Your task to perform on an android device: toggle notifications settings in the gmail app Image 0: 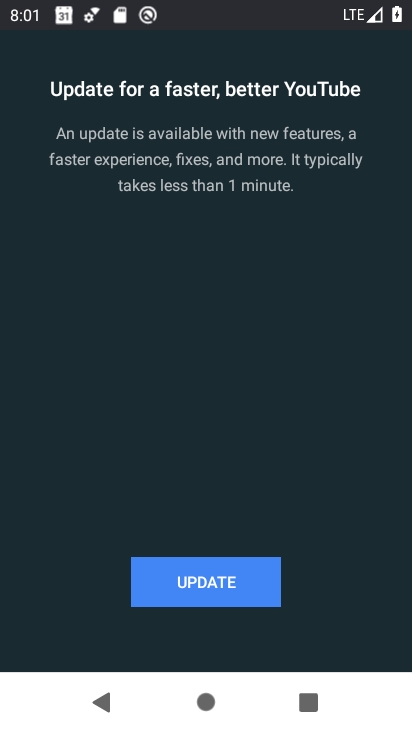
Step 0: press home button
Your task to perform on an android device: toggle notifications settings in the gmail app Image 1: 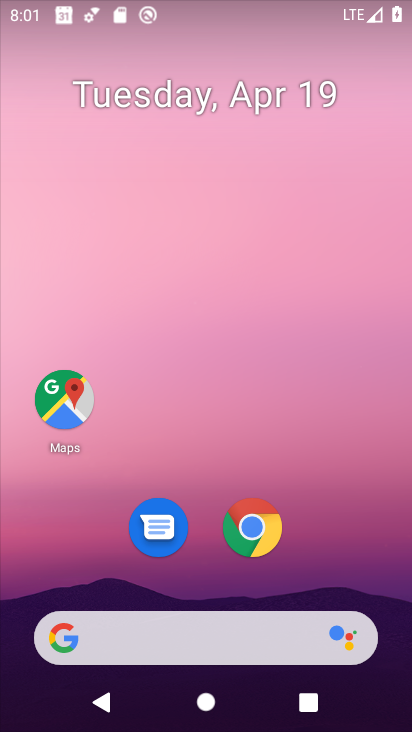
Step 1: drag from (334, 527) to (333, 237)
Your task to perform on an android device: toggle notifications settings in the gmail app Image 2: 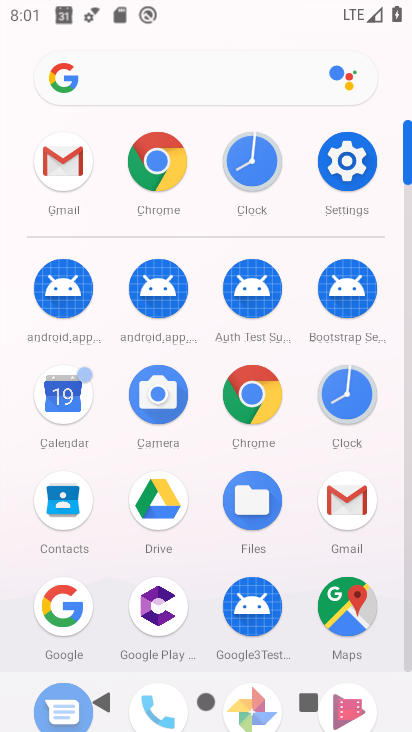
Step 2: click (352, 514)
Your task to perform on an android device: toggle notifications settings in the gmail app Image 3: 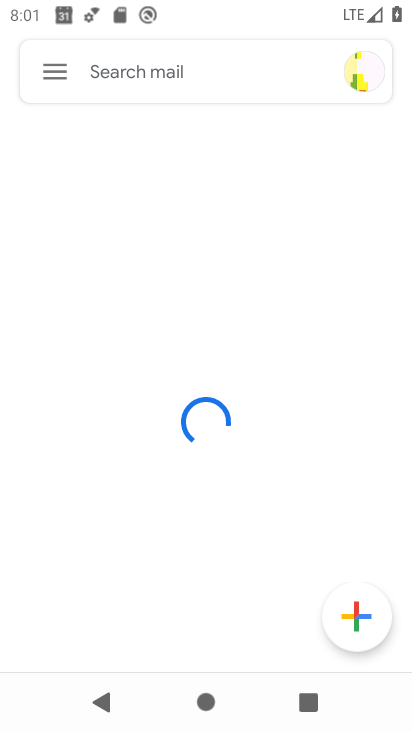
Step 3: click (52, 73)
Your task to perform on an android device: toggle notifications settings in the gmail app Image 4: 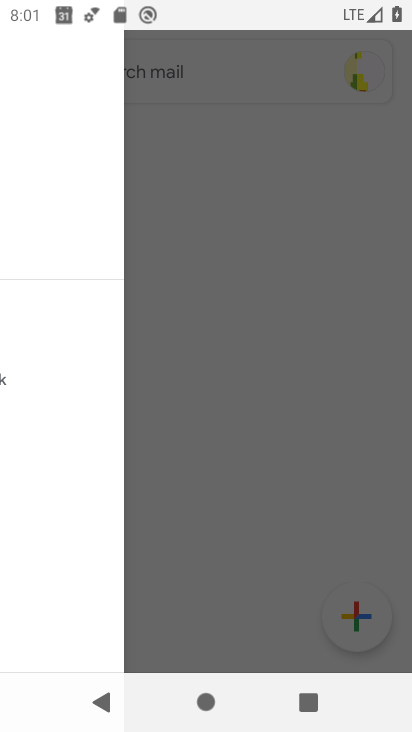
Step 4: click (114, 320)
Your task to perform on an android device: toggle notifications settings in the gmail app Image 5: 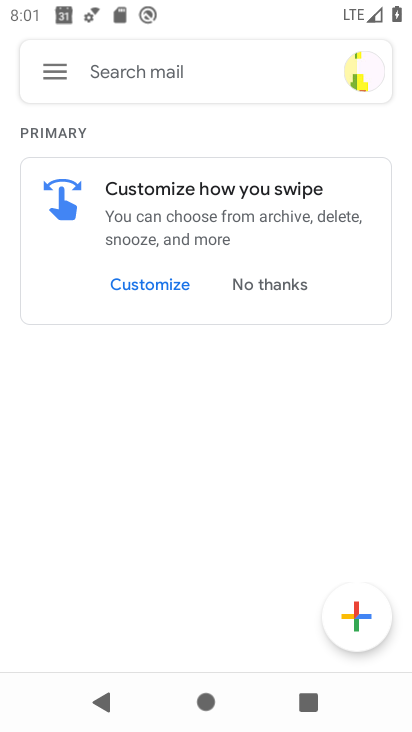
Step 5: click (54, 65)
Your task to perform on an android device: toggle notifications settings in the gmail app Image 6: 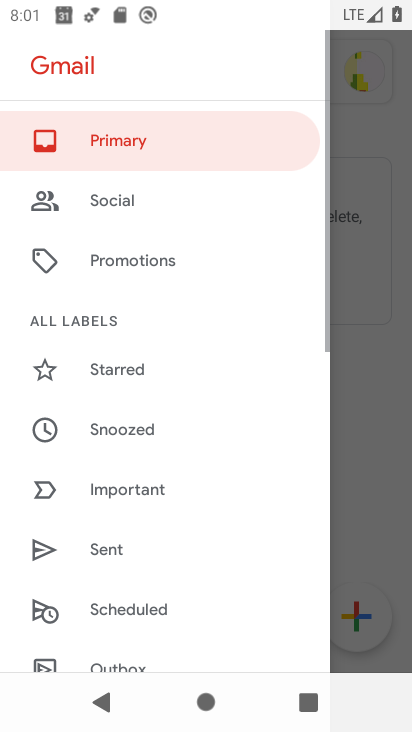
Step 6: drag from (202, 475) to (205, 173)
Your task to perform on an android device: toggle notifications settings in the gmail app Image 7: 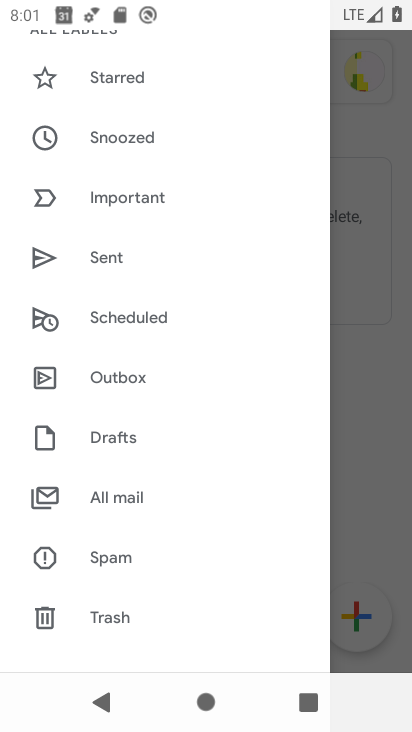
Step 7: drag from (224, 414) to (205, 105)
Your task to perform on an android device: toggle notifications settings in the gmail app Image 8: 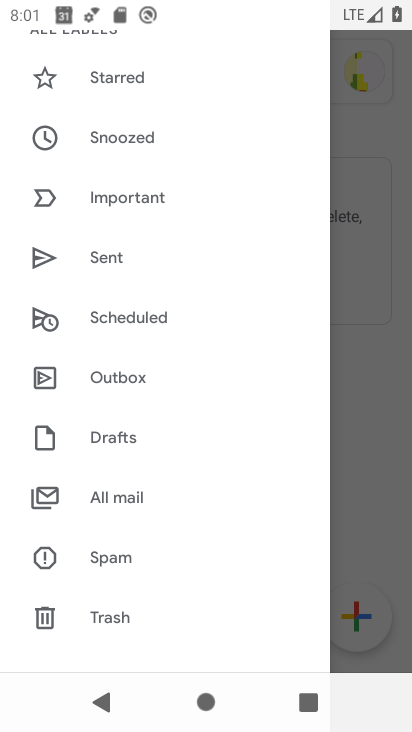
Step 8: drag from (267, 467) to (264, 213)
Your task to perform on an android device: toggle notifications settings in the gmail app Image 9: 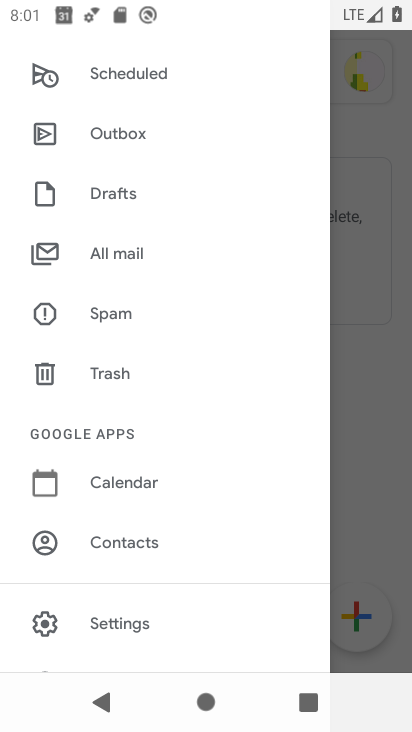
Step 9: click (118, 623)
Your task to perform on an android device: toggle notifications settings in the gmail app Image 10: 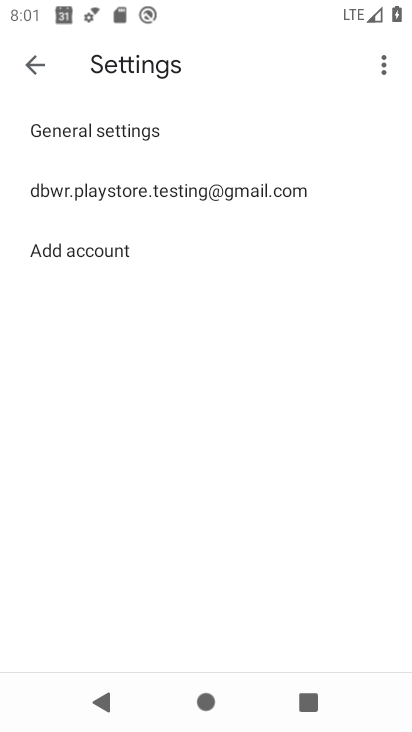
Step 10: click (290, 193)
Your task to perform on an android device: toggle notifications settings in the gmail app Image 11: 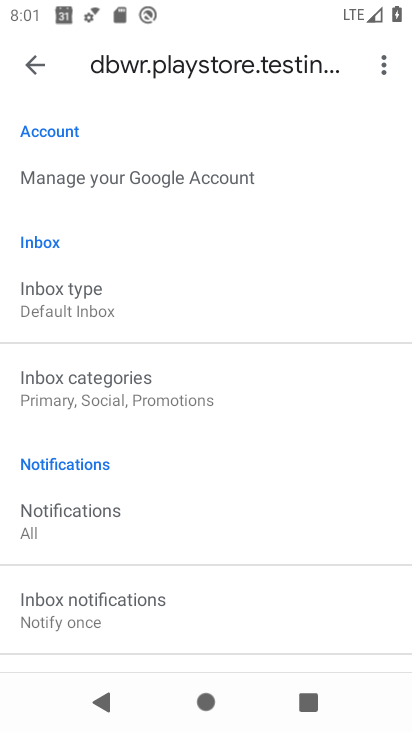
Step 11: click (87, 518)
Your task to perform on an android device: toggle notifications settings in the gmail app Image 12: 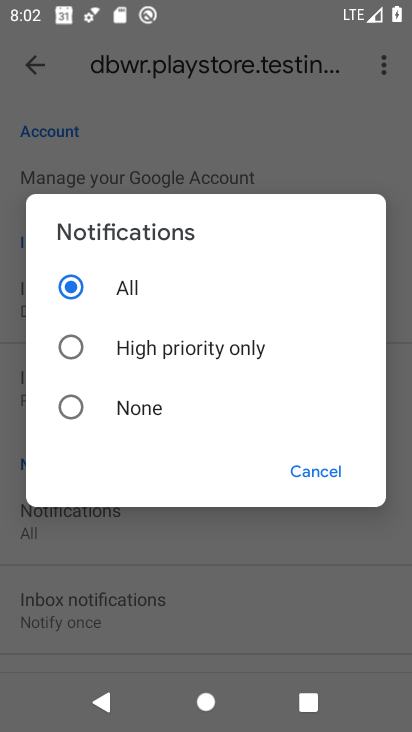
Step 12: click (118, 407)
Your task to perform on an android device: toggle notifications settings in the gmail app Image 13: 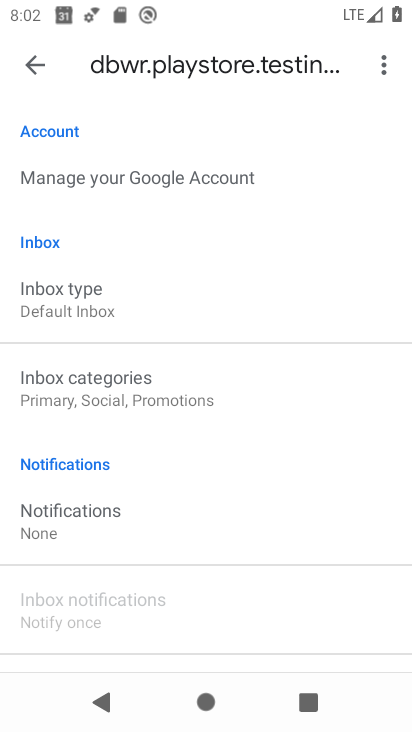
Step 13: task complete